Your task to perform on an android device: Show me the alarms in the clock app Image 0: 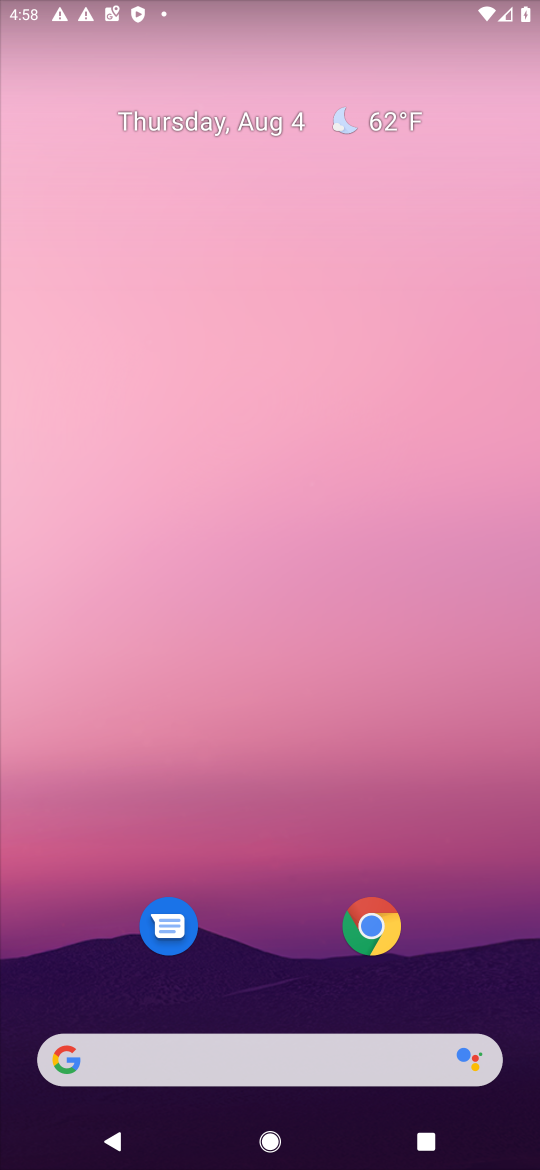
Step 0: drag from (331, 1015) to (258, 471)
Your task to perform on an android device: Show me the alarms in the clock app Image 1: 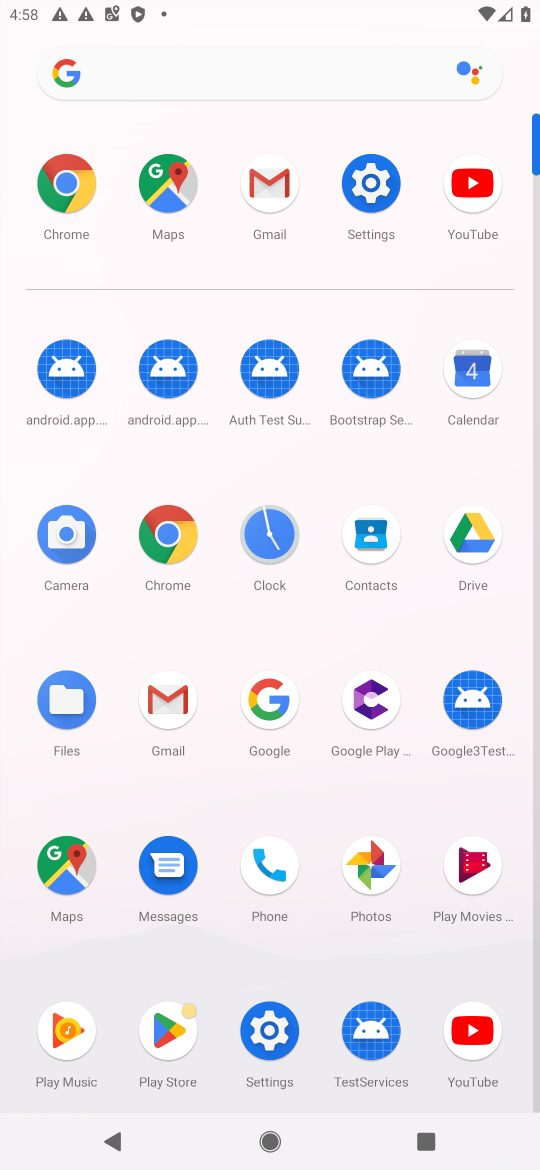
Step 1: click (260, 550)
Your task to perform on an android device: Show me the alarms in the clock app Image 2: 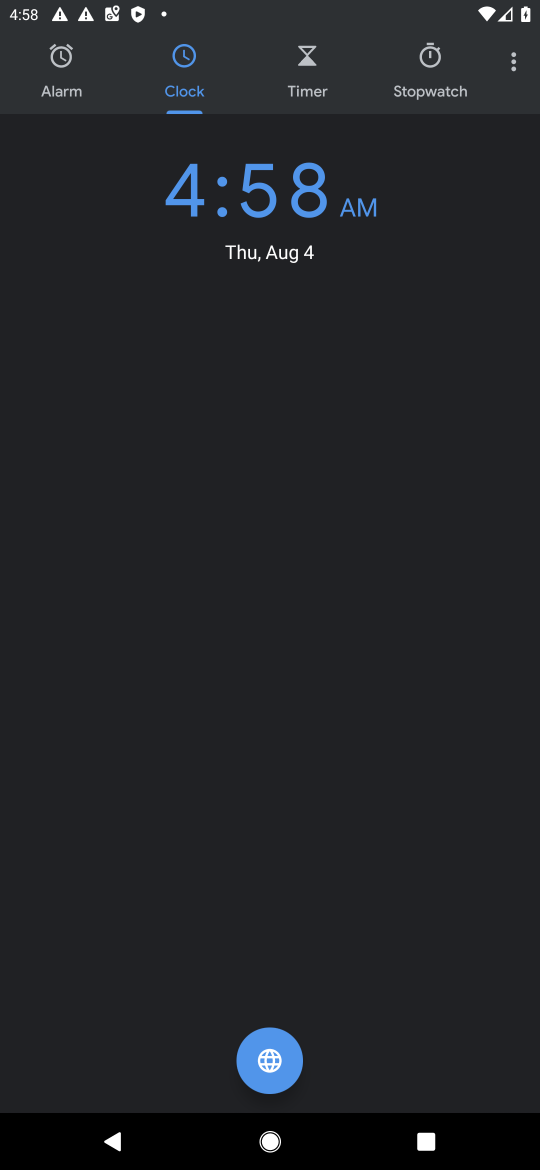
Step 2: click (55, 53)
Your task to perform on an android device: Show me the alarms in the clock app Image 3: 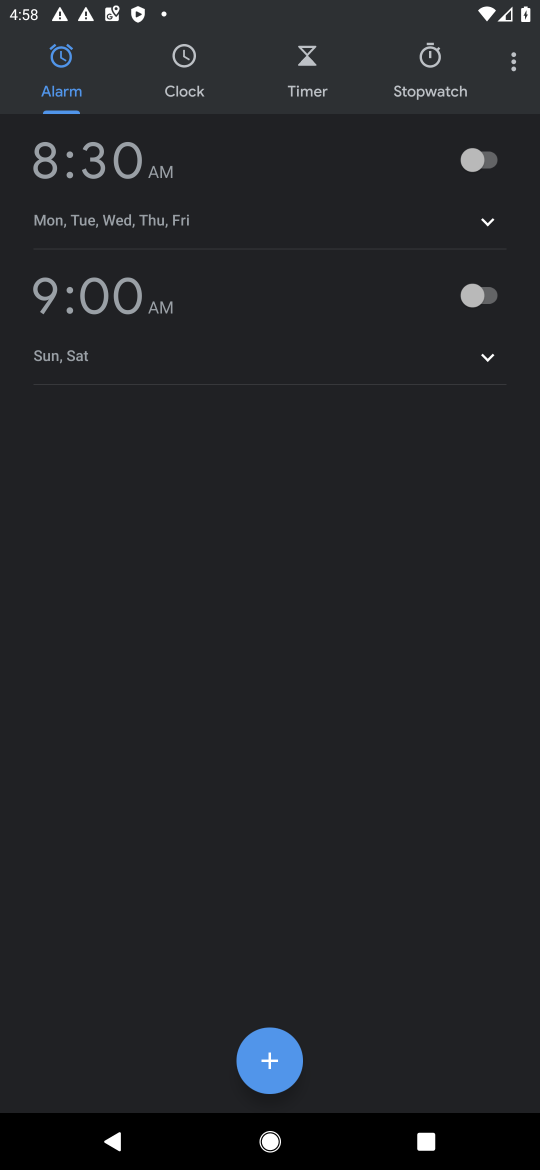
Step 3: task complete